Your task to perform on an android device: turn off notifications settings in the gmail app Image 0: 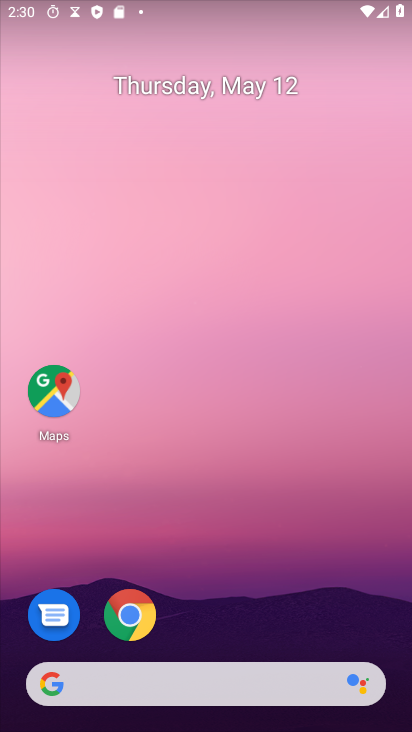
Step 0: drag from (94, 441) to (279, 118)
Your task to perform on an android device: turn off notifications settings in the gmail app Image 1: 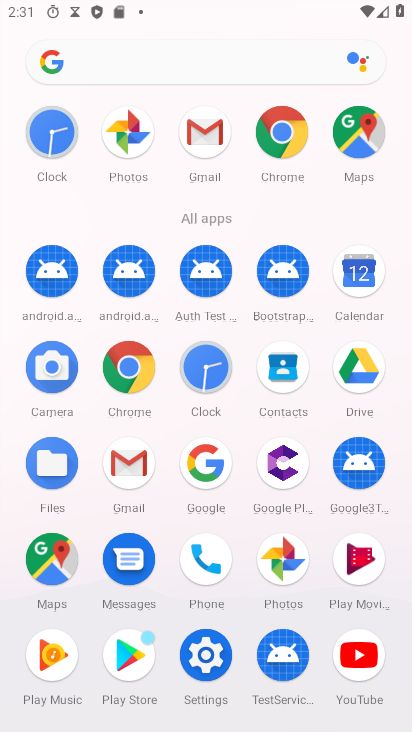
Step 1: click (118, 458)
Your task to perform on an android device: turn off notifications settings in the gmail app Image 2: 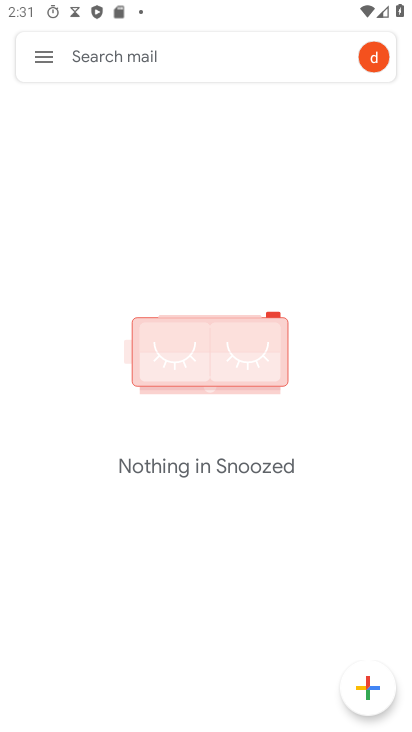
Step 2: click (46, 55)
Your task to perform on an android device: turn off notifications settings in the gmail app Image 3: 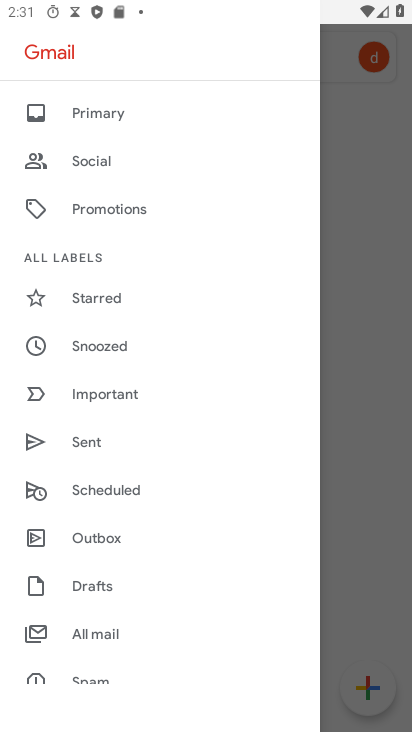
Step 3: drag from (106, 691) to (158, 184)
Your task to perform on an android device: turn off notifications settings in the gmail app Image 4: 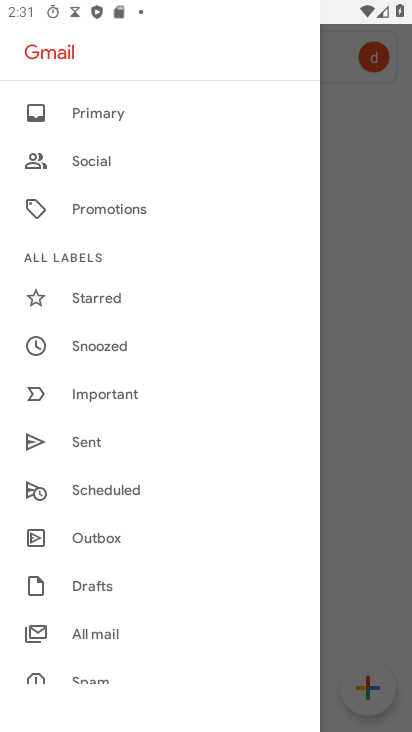
Step 4: drag from (18, 706) to (189, 132)
Your task to perform on an android device: turn off notifications settings in the gmail app Image 5: 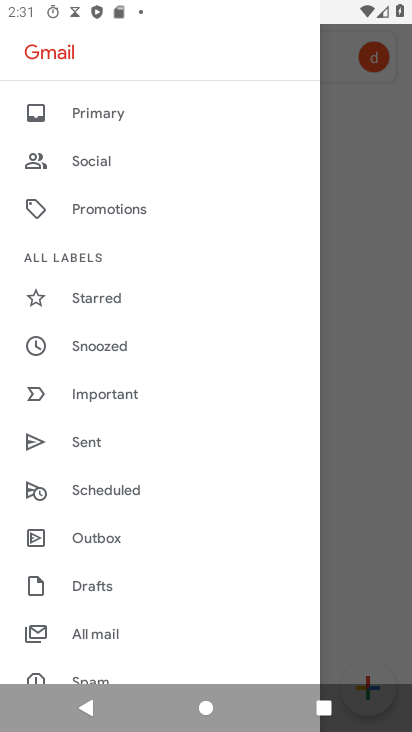
Step 5: drag from (0, 606) to (157, 187)
Your task to perform on an android device: turn off notifications settings in the gmail app Image 6: 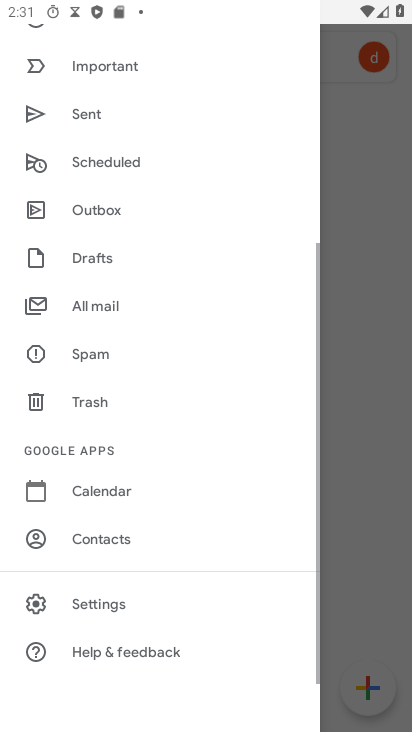
Step 6: click (76, 601)
Your task to perform on an android device: turn off notifications settings in the gmail app Image 7: 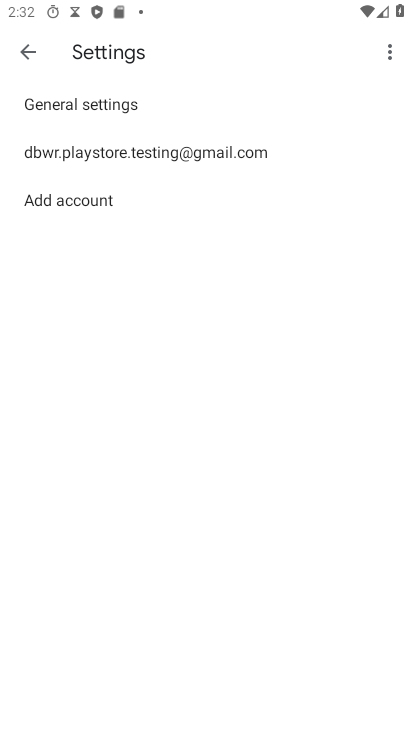
Step 7: click (86, 164)
Your task to perform on an android device: turn off notifications settings in the gmail app Image 8: 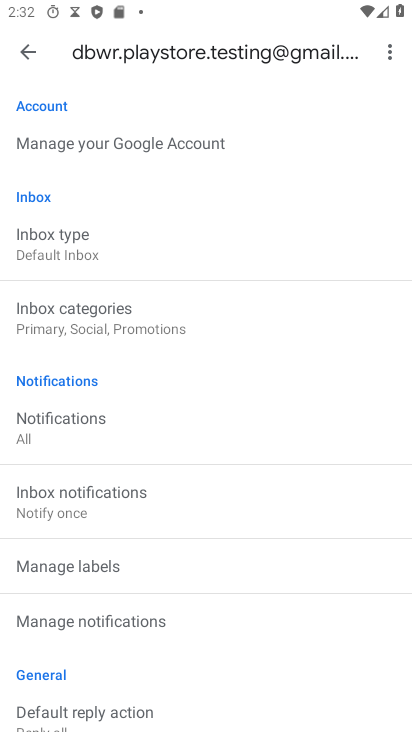
Step 8: click (93, 628)
Your task to perform on an android device: turn off notifications settings in the gmail app Image 9: 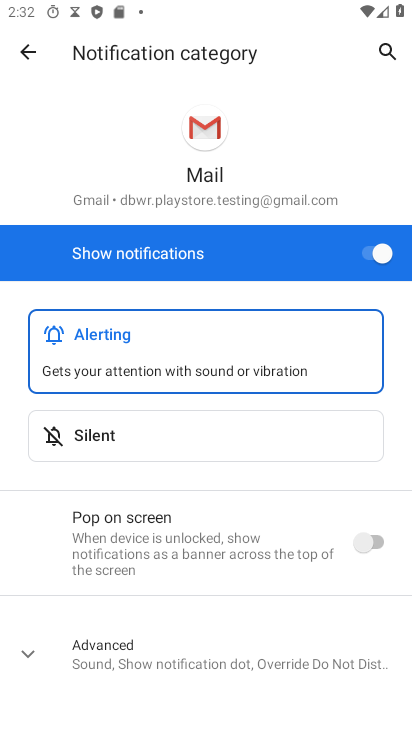
Step 9: click (376, 251)
Your task to perform on an android device: turn off notifications settings in the gmail app Image 10: 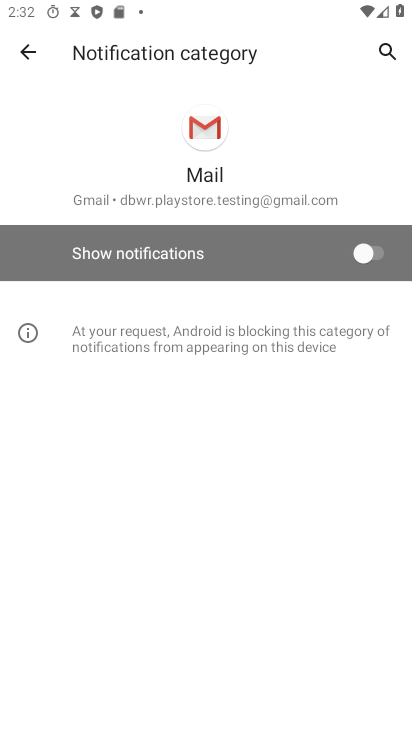
Step 10: task complete